Your task to perform on an android device: find which apps use the phone's location Image 0: 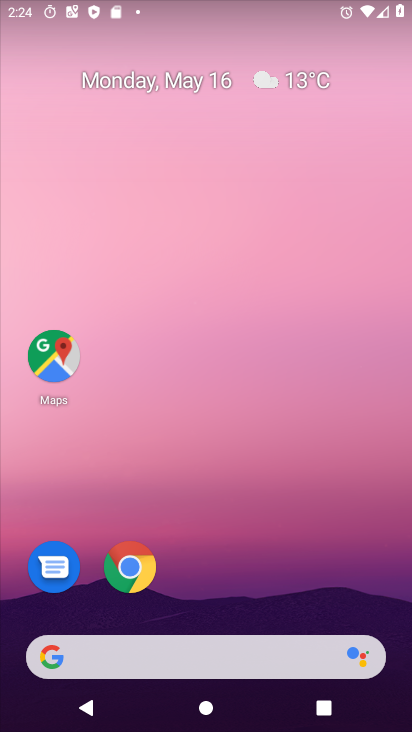
Step 0: drag from (305, 583) to (290, 29)
Your task to perform on an android device: find which apps use the phone's location Image 1: 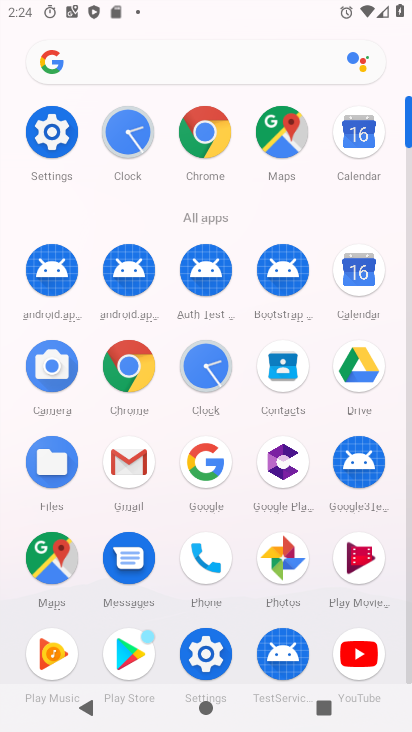
Step 1: click (213, 553)
Your task to perform on an android device: find which apps use the phone's location Image 2: 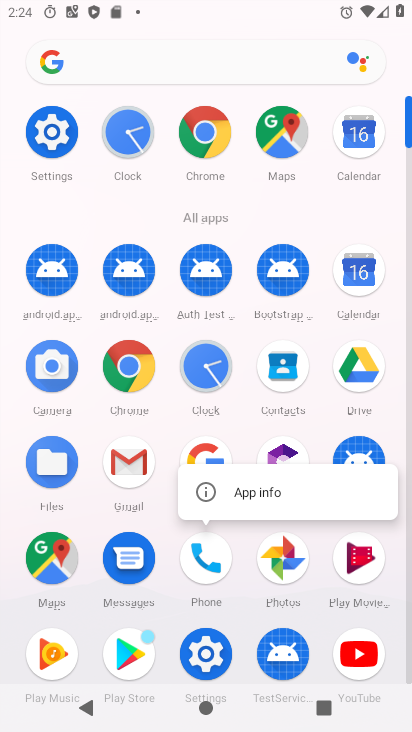
Step 2: click (253, 485)
Your task to perform on an android device: find which apps use the phone's location Image 3: 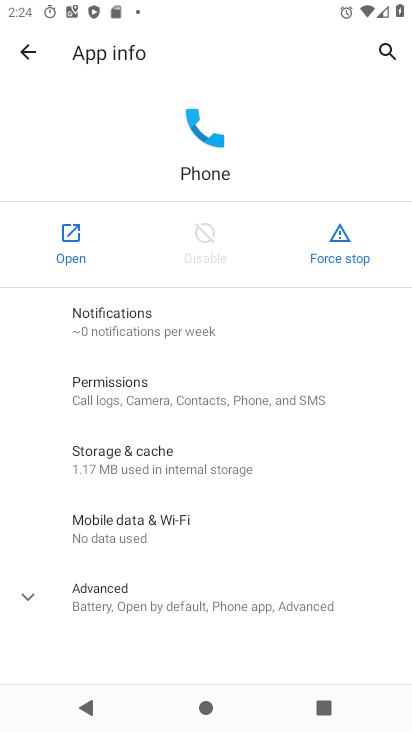
Step 3: click (153, 390)
Your task to perform on an android device: find which apps use the phone's location Image 4: 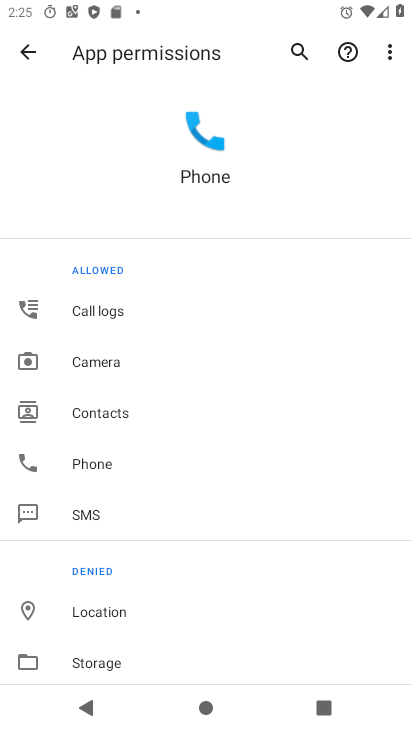
Step 4: click (128, 617)
Your task to perform on an android device: find which apps use the phone's location Image 5: 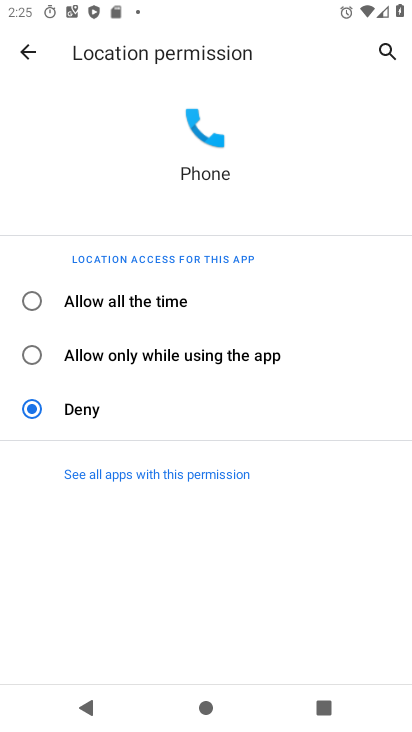
Step 5: task complete